Your task to perform on an android device: check out phone information Image 0: 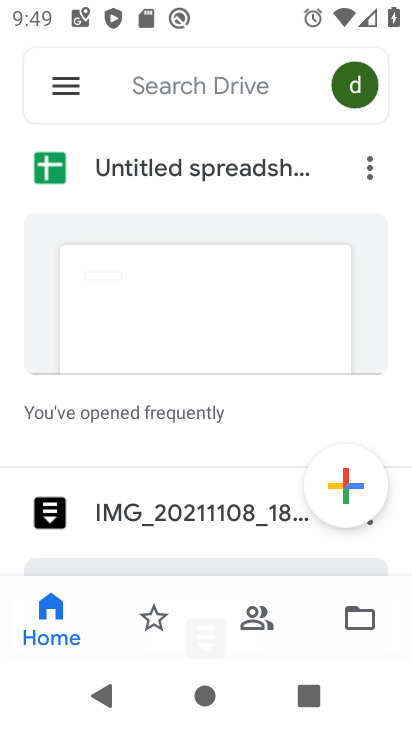
Step 0: press home button
Your task to perform on an android device: check out phone information Image 1: 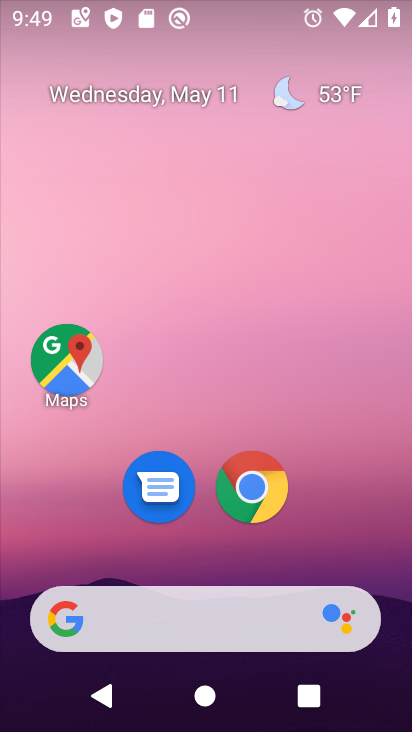
Step 1: drag from (224, 575) to (229, 267)
Your task to perform on an android device: check out phone information Image 2: 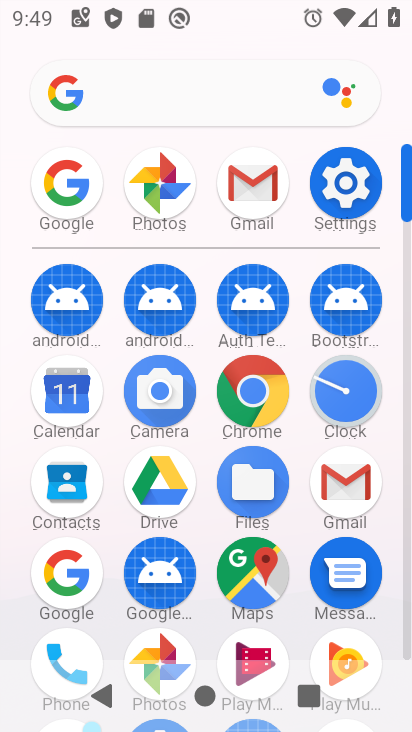
Step 2: click (330, 189)
Your task to perform on an android device: check out phone information Image 3: 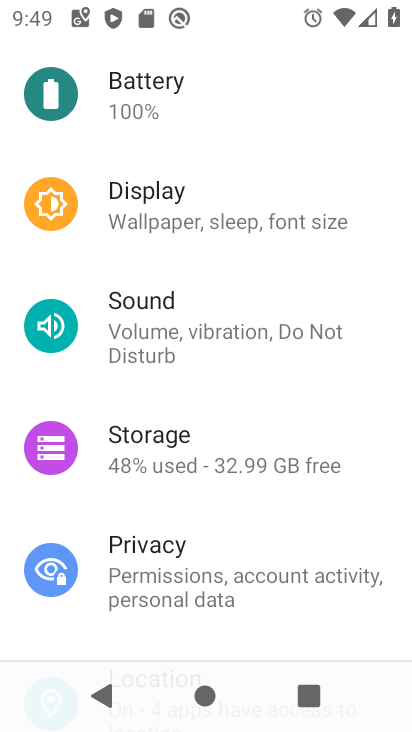
Step 3: drag from (176, 585) to (199, 206)
Your task to perform on an android device: check out phone information Image 4: 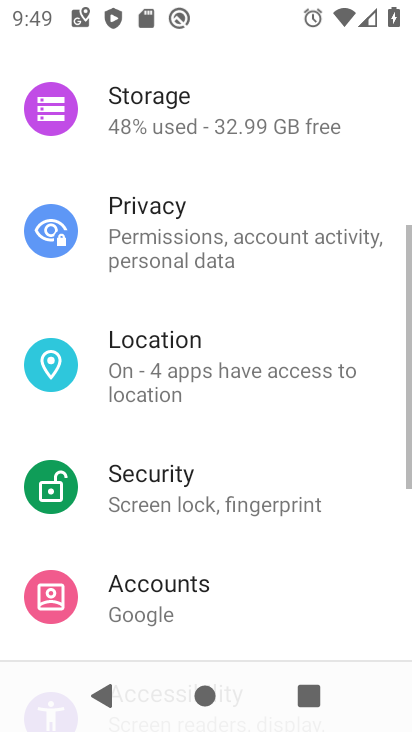
Step 4: drag from (221, 563) to (221, 179)
Your task to perform on an android device: check out phone information Image 5: 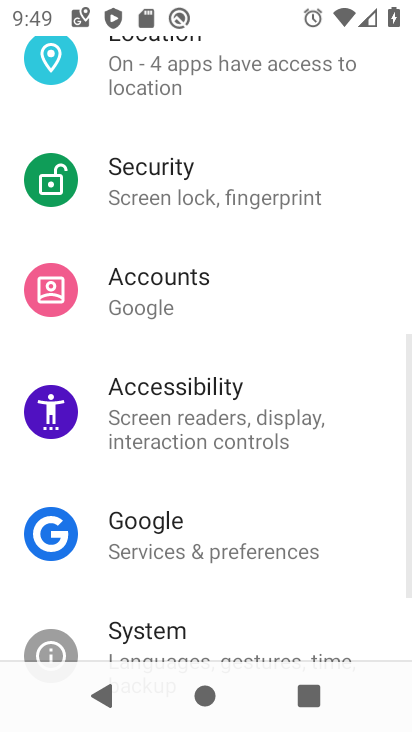
Step 5: drag from (225, 613) to (230, 168)
Your task to perform on an android device: check out phone information Image 6: 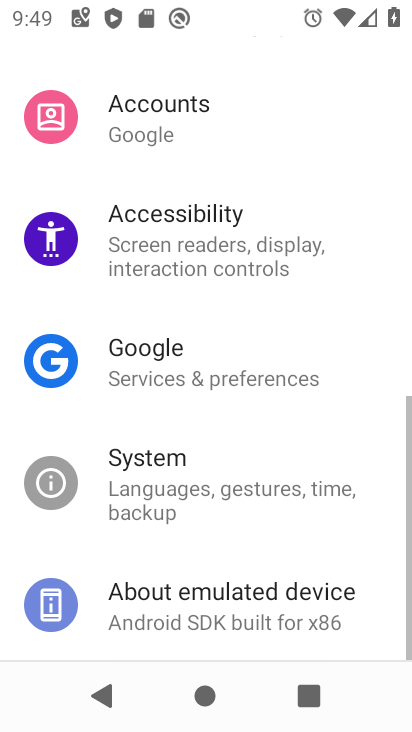
Step 6: drag from (231, 506) to (231, 167)
Your task to perform on an android device: check out phone information Image 7: 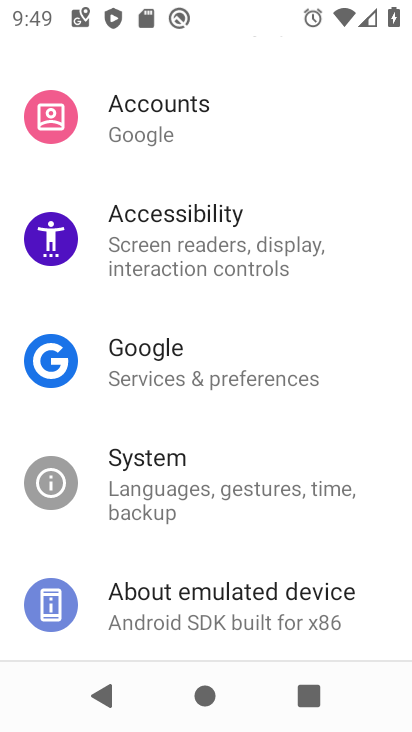
Step 7: click (175, 577)
Your task to perform on an android device: check out phone information Image 8: 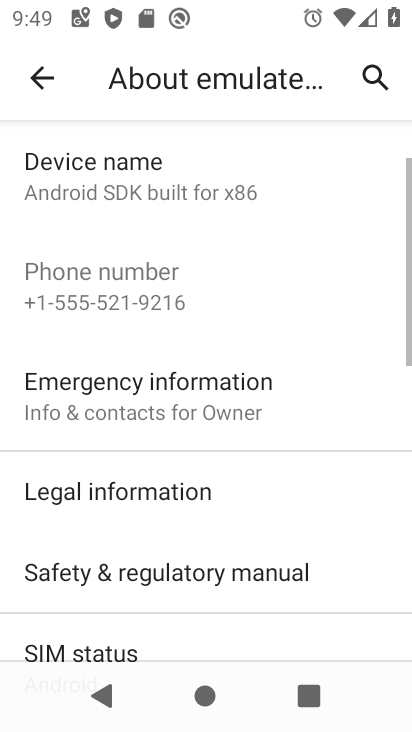
Step 8: task complete